Your task to perform on an android device: turn vacation reply on in the gmail app Image 0: 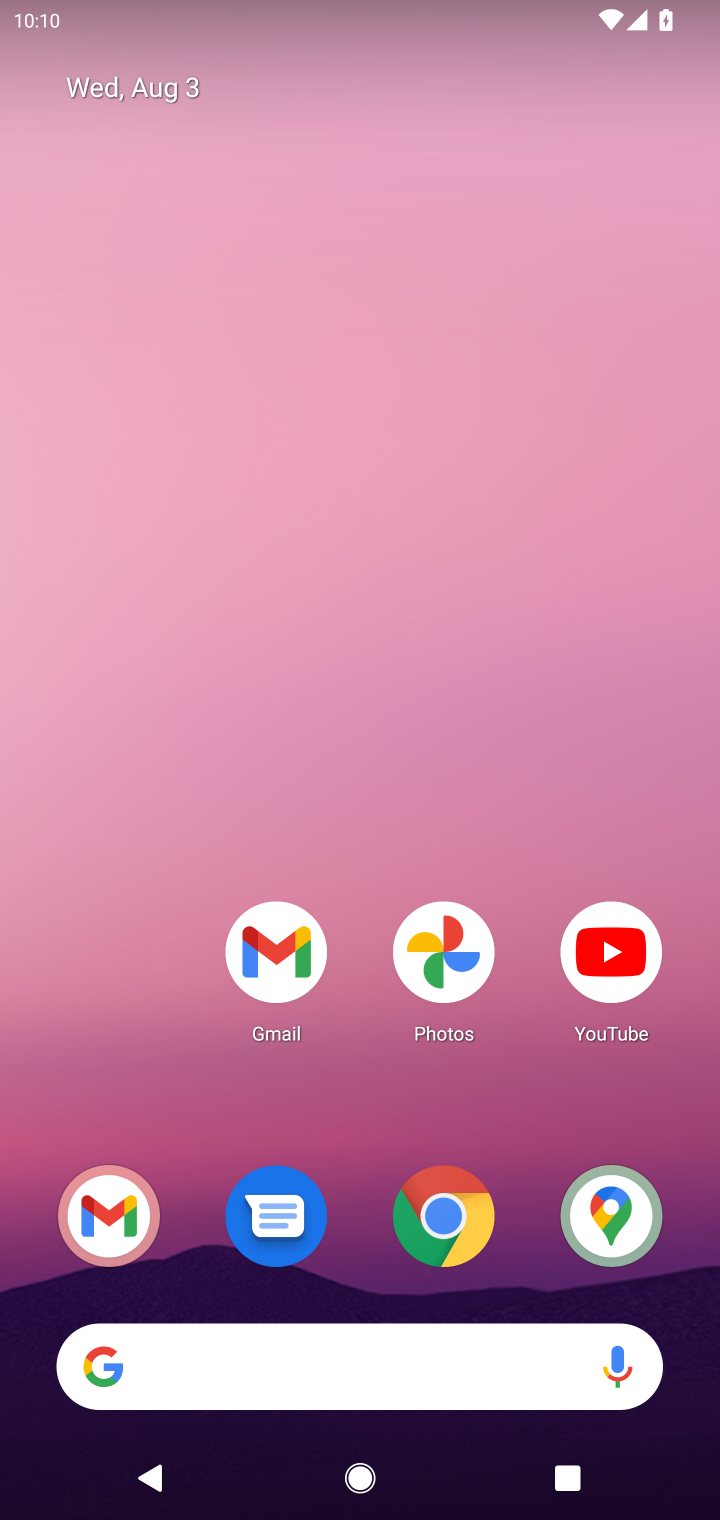
Step 0: click (279, 933)
Your task to perform on an android device: turn vacation reply on in the gmail app Image 1: 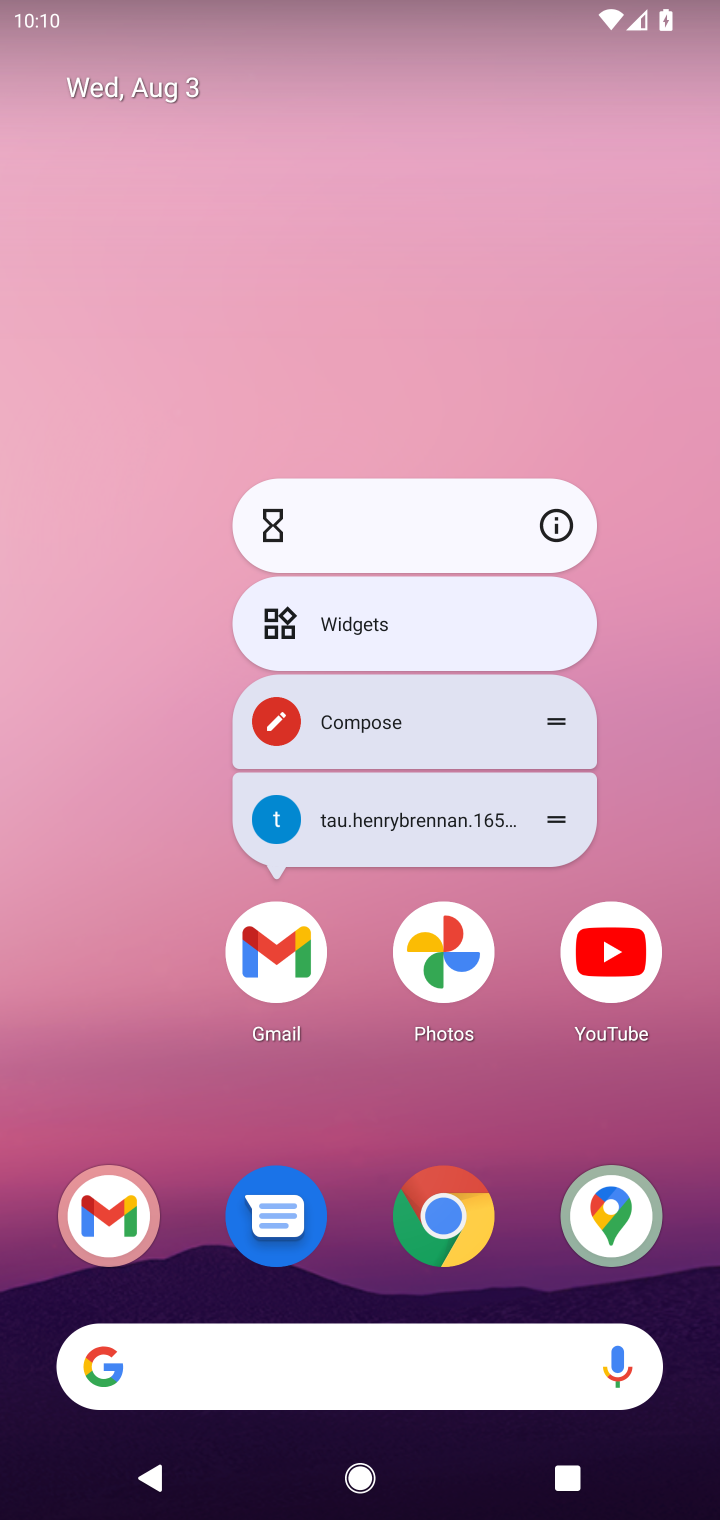
Step 1: click (279, 949)
Your task to perform on an android device: turn vacation reply on in the gmail app Image 2: 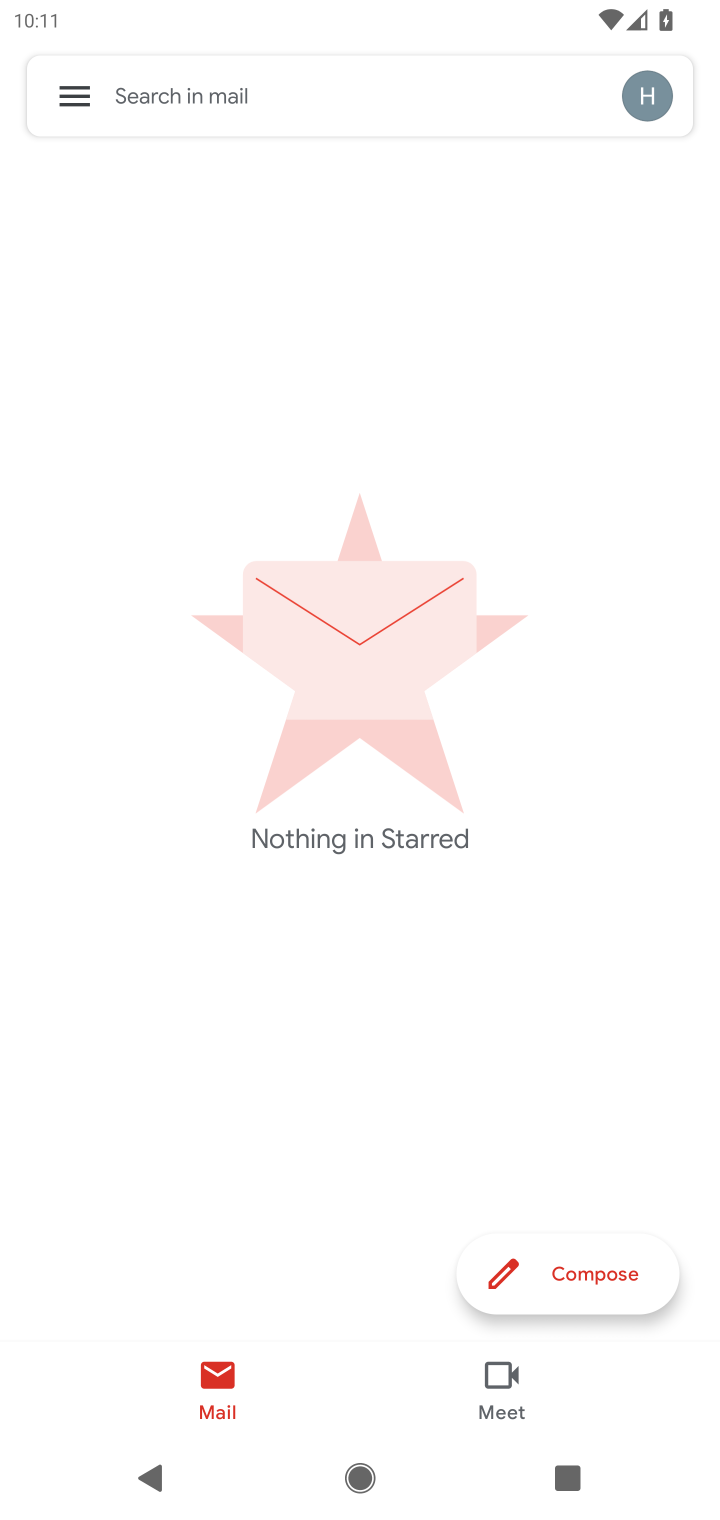
Step 2: click (83, 92)
Your task to perform on an android device: turn vacation reply on in the gmail app Image 3: 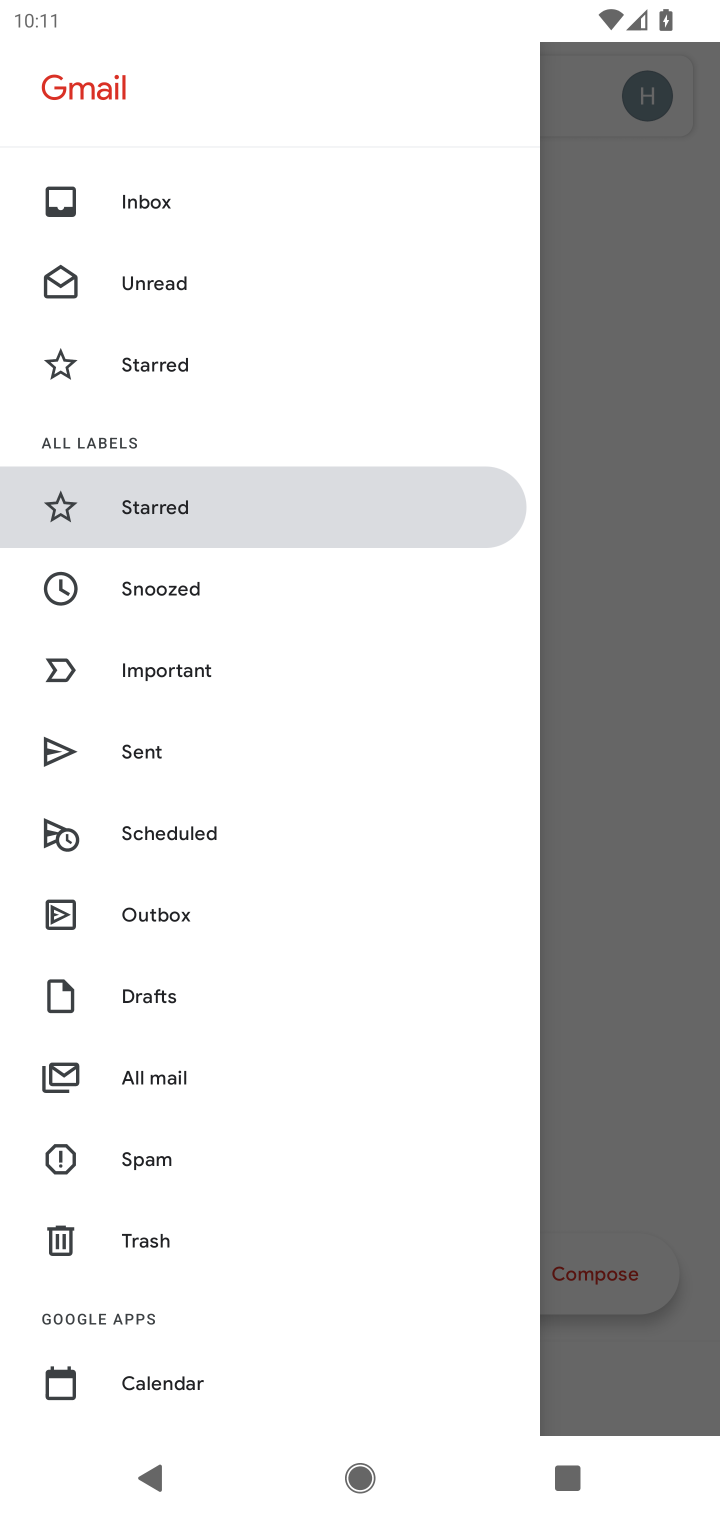
Step 3: drag from (216, 1295) to (393, 90)
Your task to perform on an android device: turn vacation reply on in the gmail app Image 4: 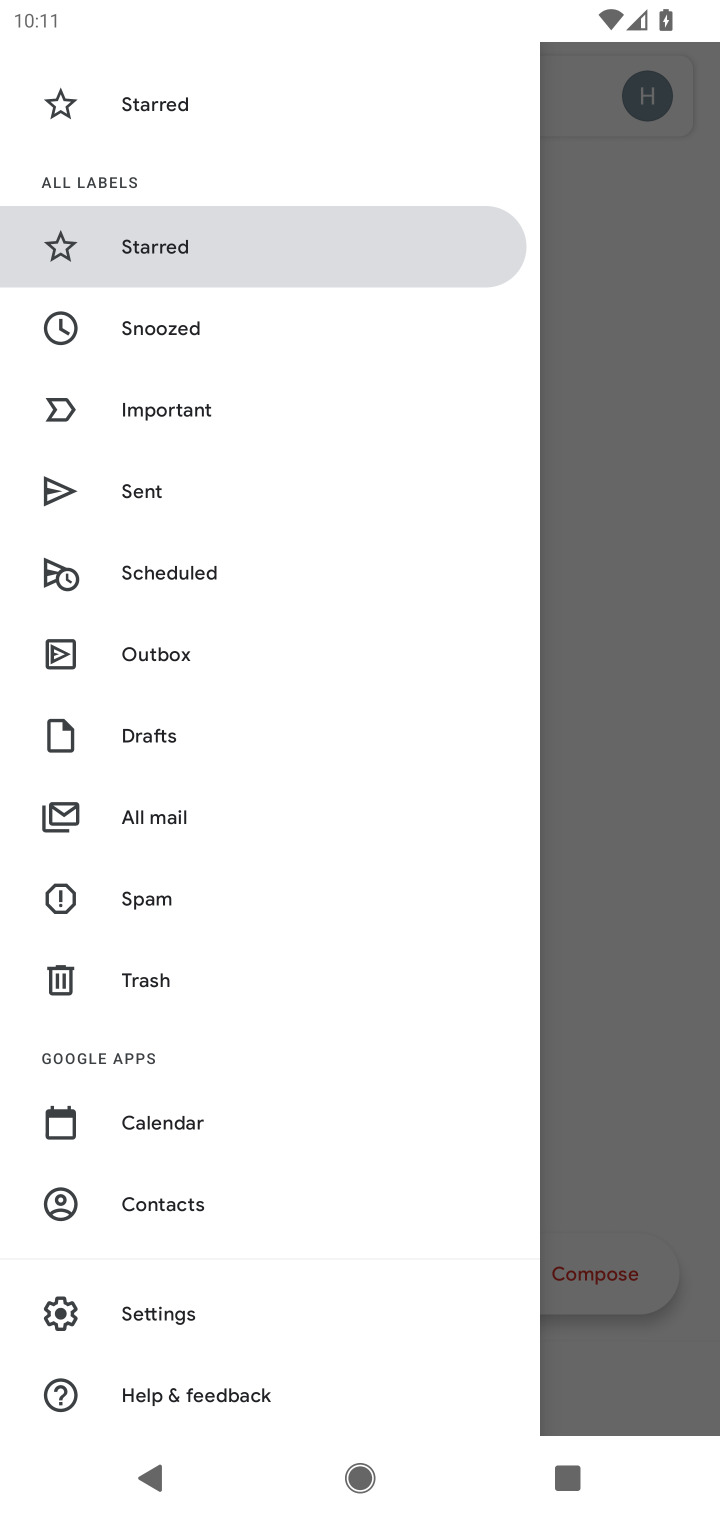
Step 4: click (163, 1303)
Your task to perform on an android device: turn vacation reply on in the gmail app Image 5: 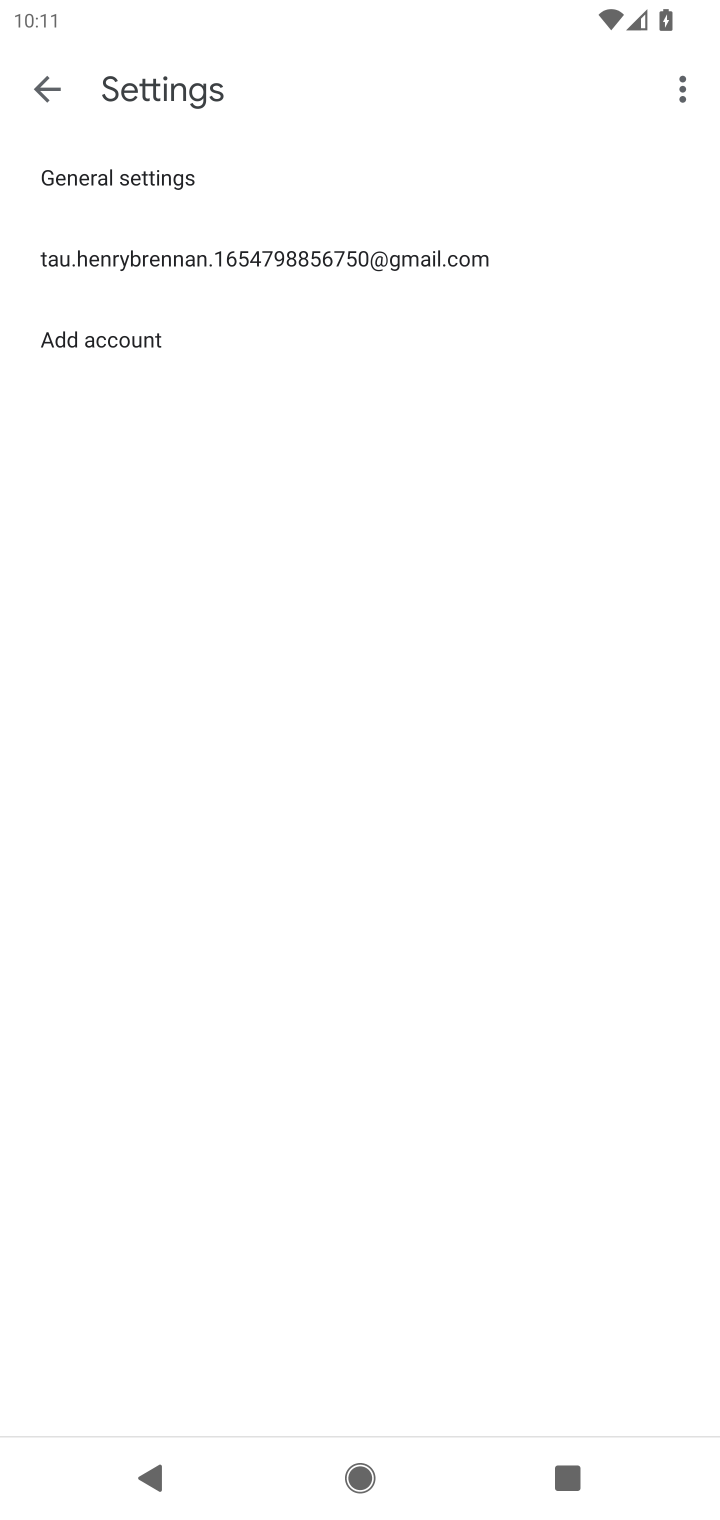
Step 5: click (250, 248)
Your task to perform on an android device: turn vacation reply on in the gmail app Image 6: 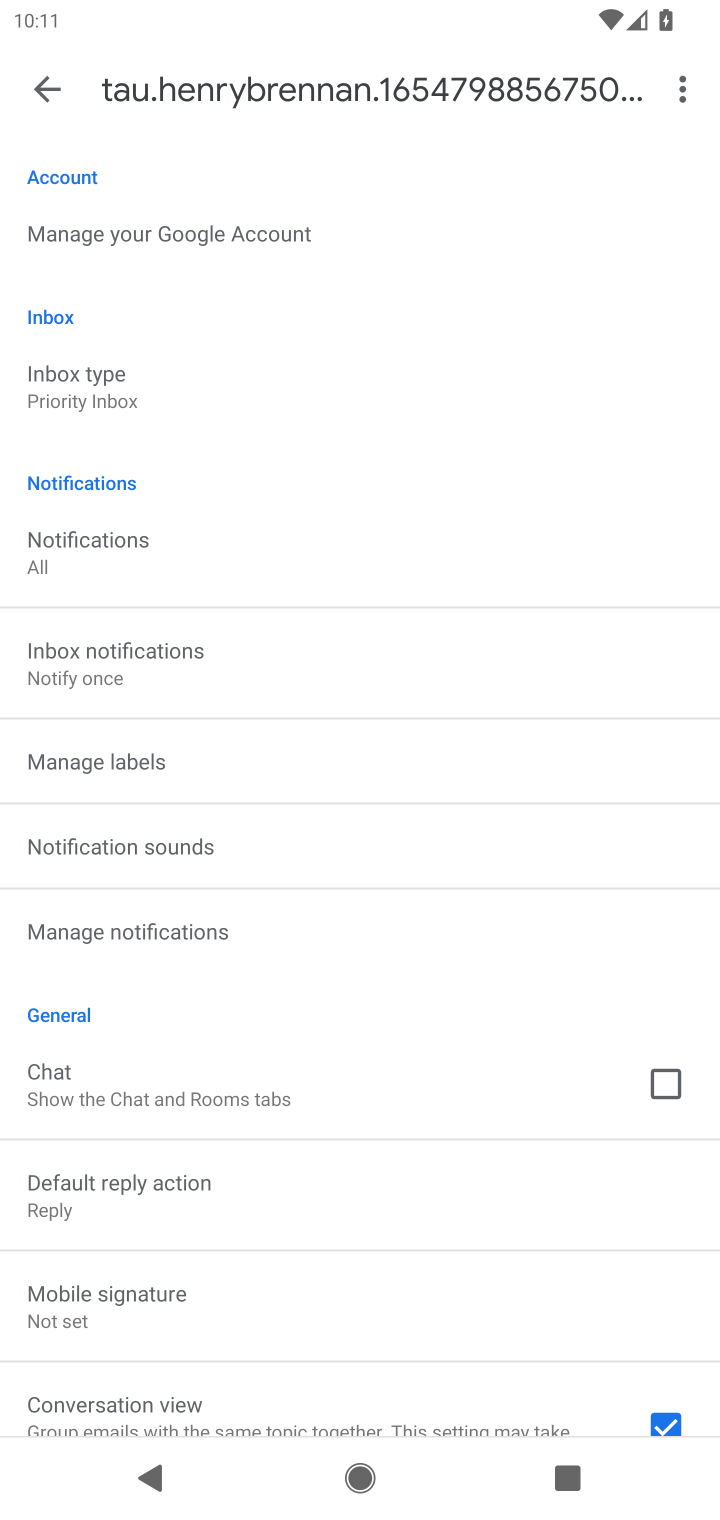
Step 6: drag from (191, 1314) to (432, 253)
Your task to perform on an android device: turn vacation reply on in the gmail app Image 7: 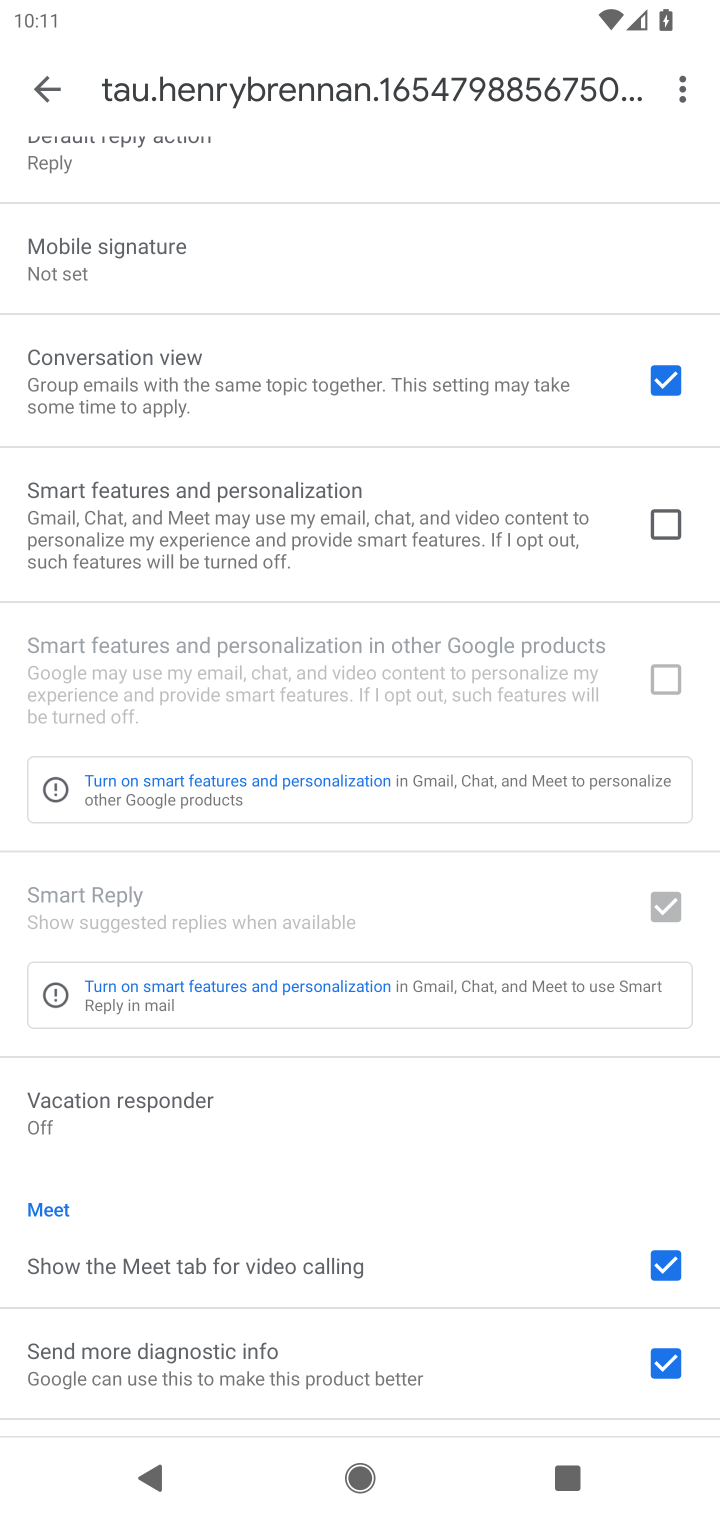
Step 7: click (132, 1115)
Your task to perform on an android device: turn vacation reply on in the gmail app Image 8: 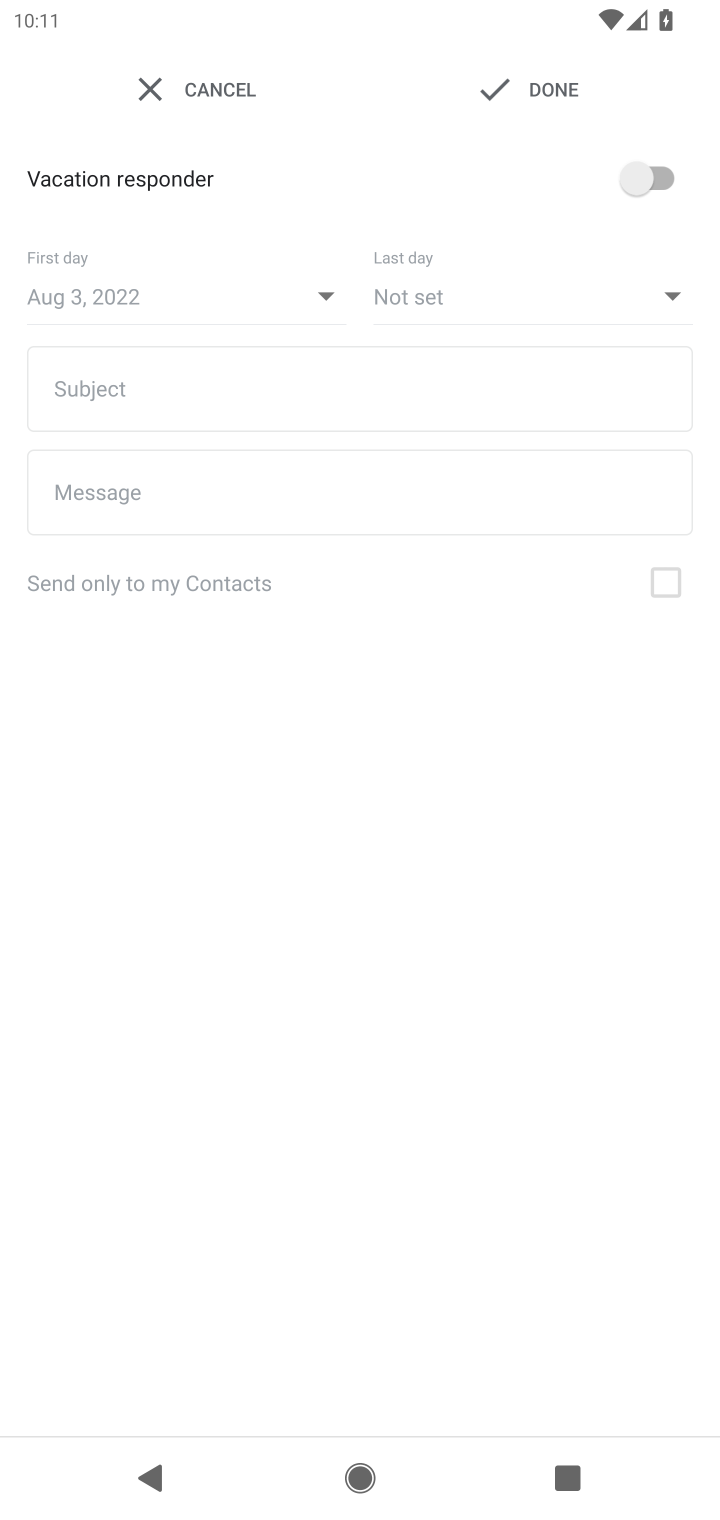
Step 8: click (648, 185)
Your task to perform on an android device: turn vacation reply on in the gmail app Image 9: 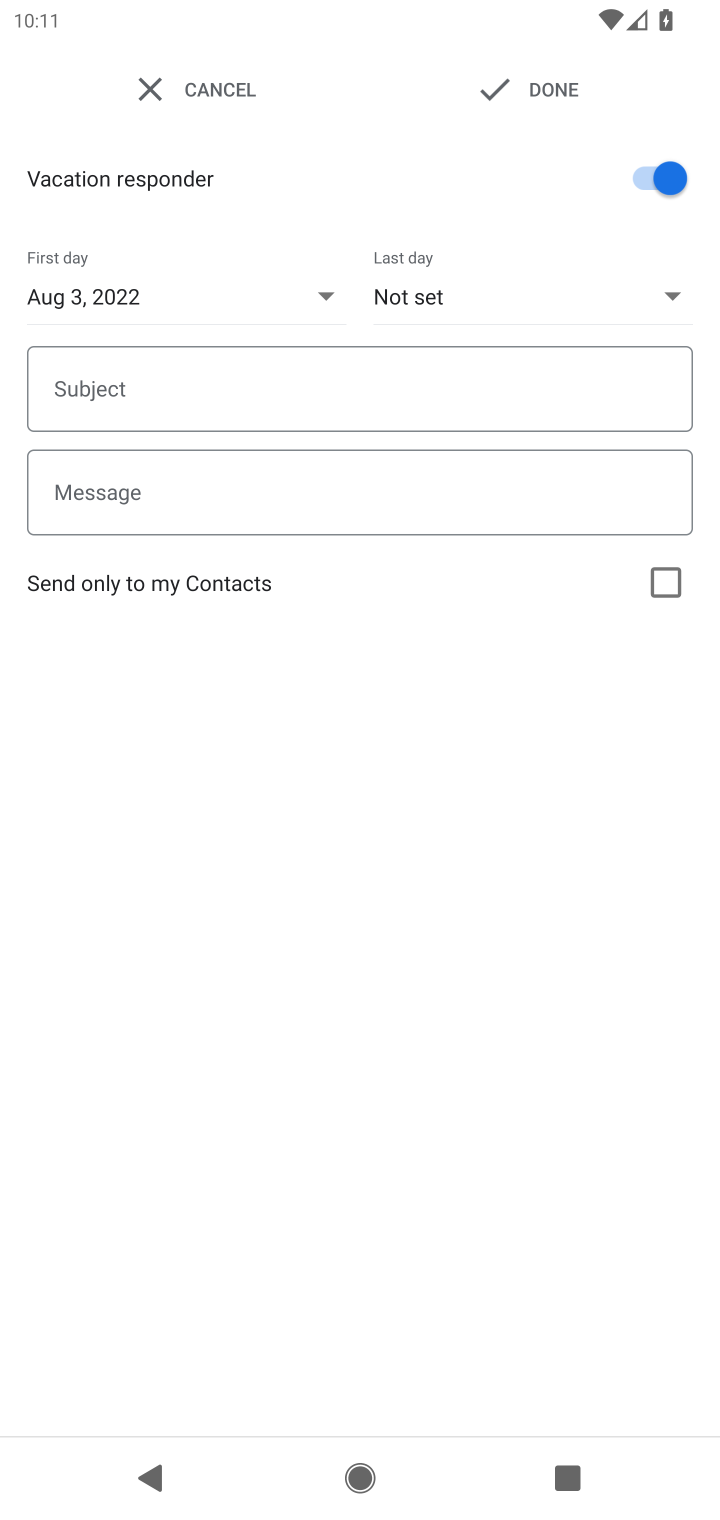
Step 9: task complete